Your task to perform on an android device: delete a single message in the gmail app Image 0: 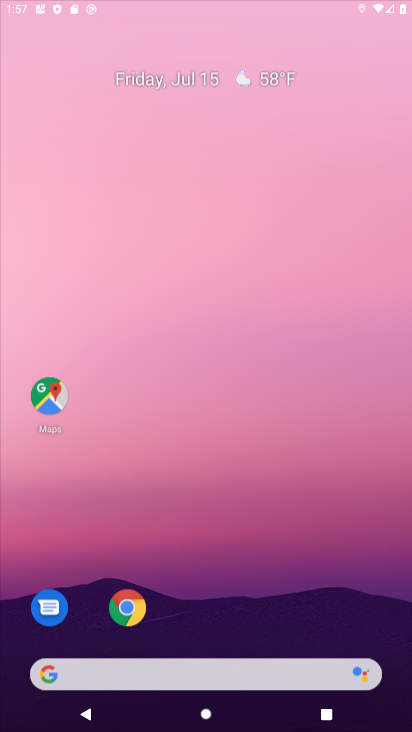
Step 0: click (344, 94)
Your task to perform on an android device: delete a single message in the gmail app Image 1: 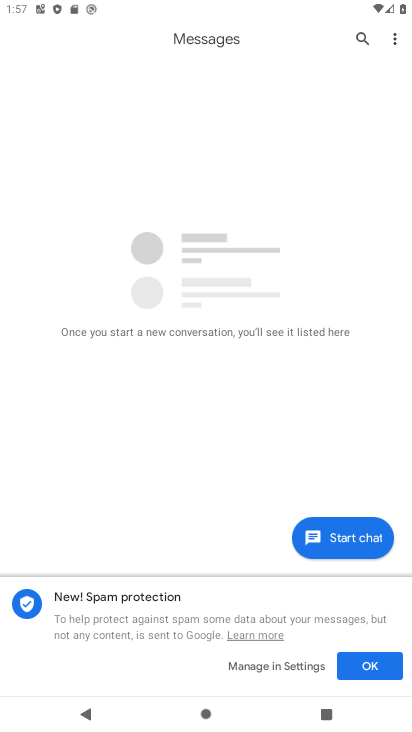
Step 1: press home button
Your task to perform on an android device: delete a single message in the gmail app Image 2: 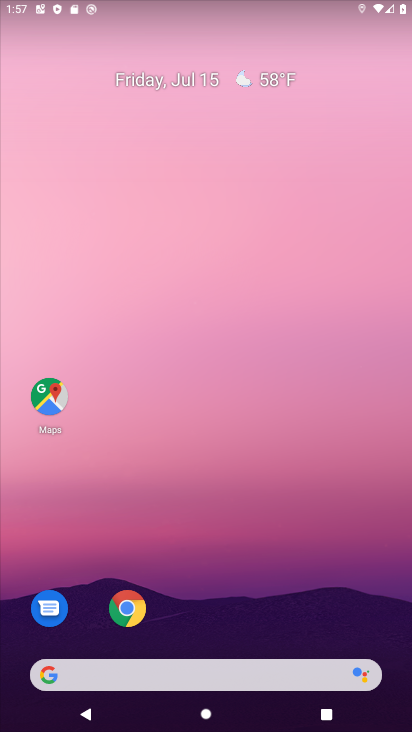
Step 2: drag from (252, 607) to (344, 171)
Your task to perform on an android device: delete a single message in the gmail app Image 3: 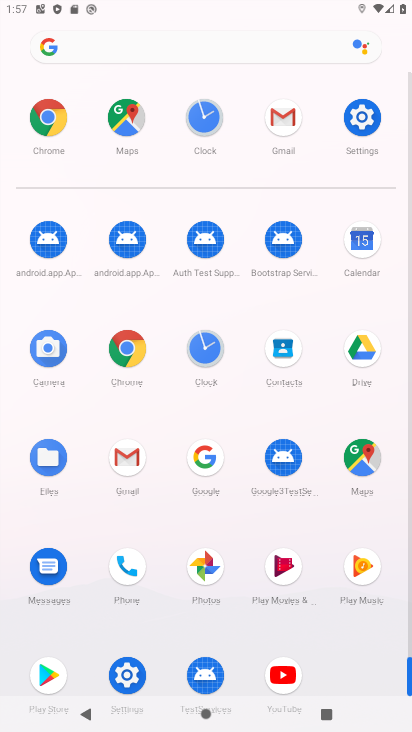
Step 3: click (136, 447)
Your task to perform on an android device: delete a single message in the gmail app Image 4: 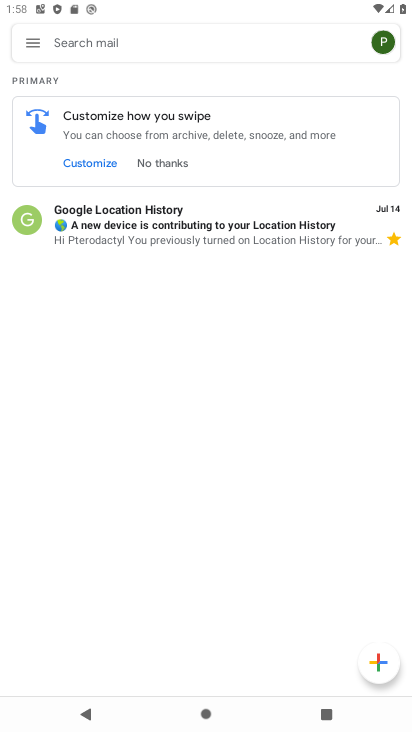
Step 4: click (31, 220)
Your task to perform on an android device: delete a single message in the gmail app Image 5: 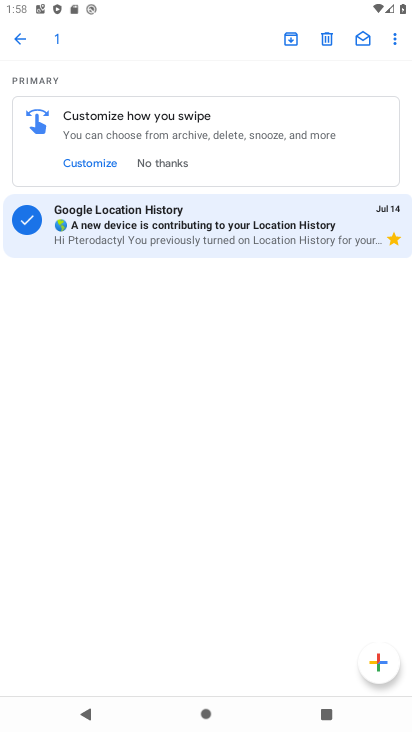
Step 5: click (320, 42)
Your task to perform on an android device: delete a single message in the gmail app Image 6: 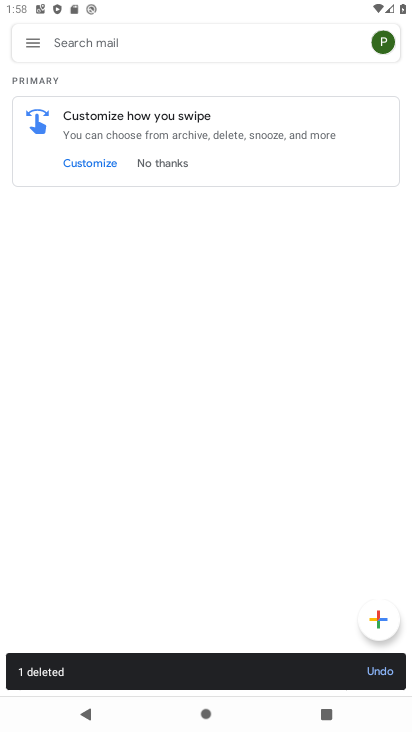
Step 6: task complete